Your task to perform on an android device: delete the emails in spam in the gmail app Image 0: 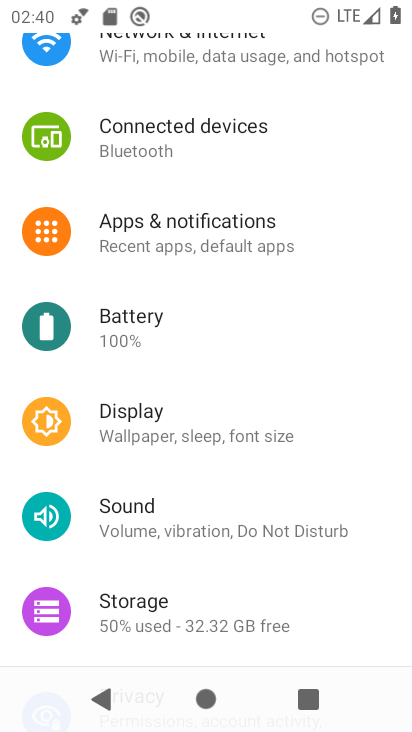
Step 0: press home button
Your task to perform on an android device: delete the emails in spam in the gmail app Image 1: 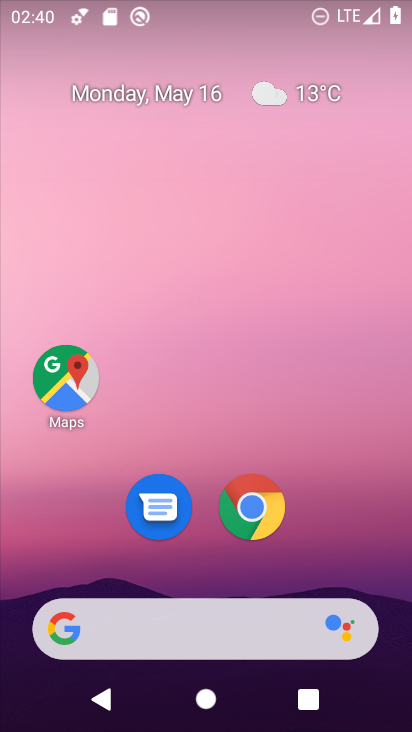
Step 1: drag from (331, 549) to (219, 83)
Your task to perform on an android device: delete the emails in spam in the gmail app Image 2: 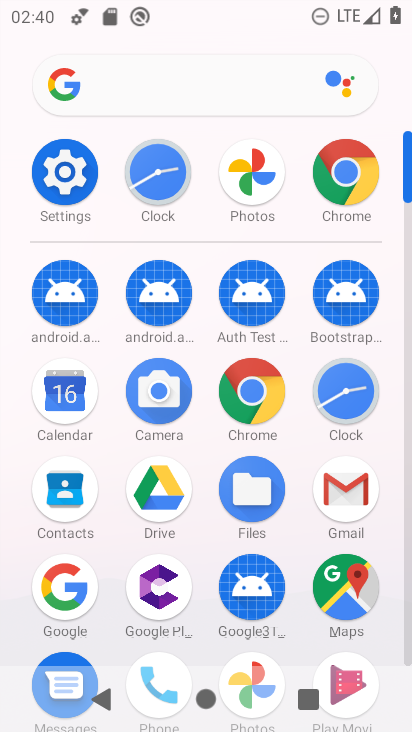
Step 2: click (341, 482)
Your task to perform on an android device: delete the emails in spam in the gmail app Image 3: 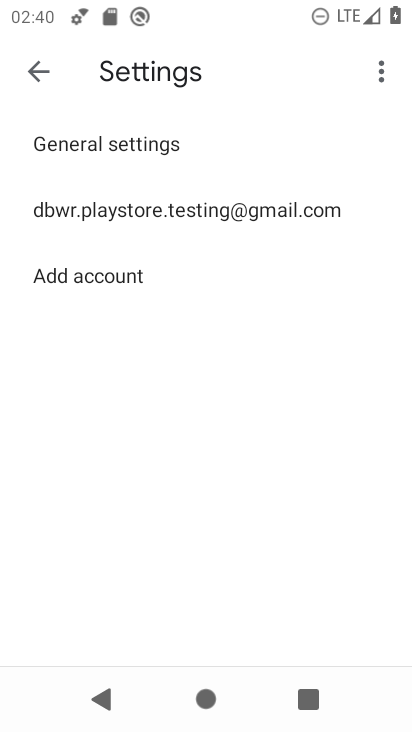
Step 3: click (34, 77)
Your task to perform on an android device: delete the emails in spam in the gmail app Image 4: 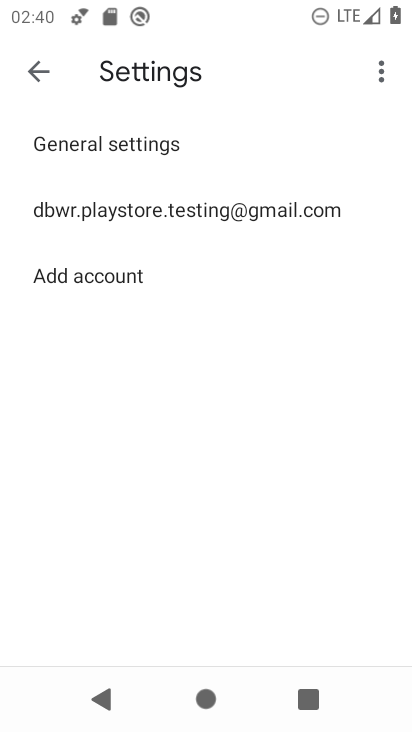
Step 4: click (36, 66)
Your task to perform on an android device: delete the emails in spam in the gmail app Image 5: 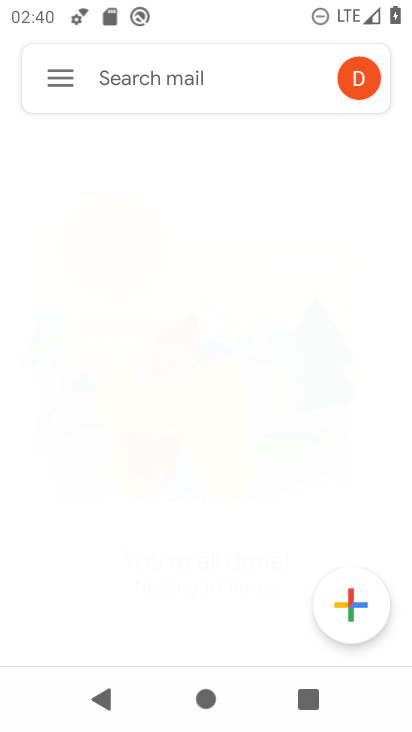
Step 5: click (70, 76)
Your task to perform on an android device: delete the emails in spam in the gmail app Image 6: 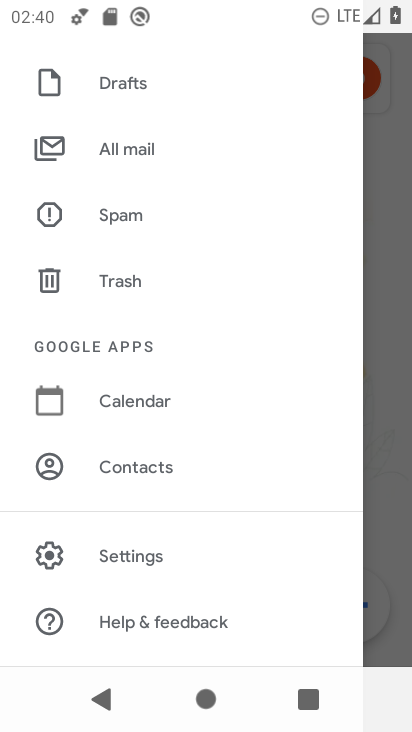
Step 6: click (156, 221)
Your task to perform on an android device: delete the emails in spam in the gmail app Image 7: 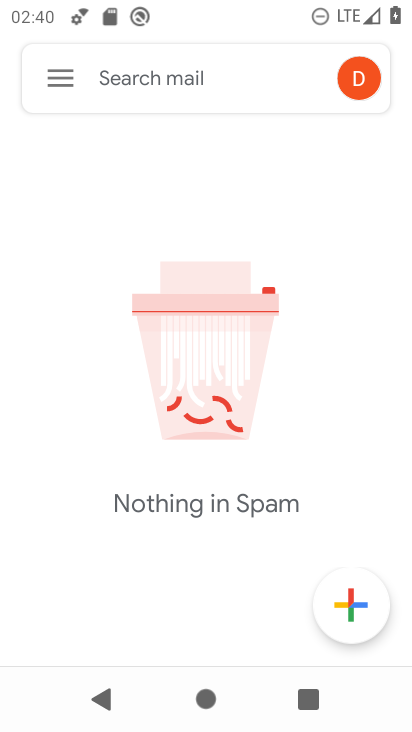
Step 7: task complete